Your task to perform on an android device: Go to sound settings Image 0: 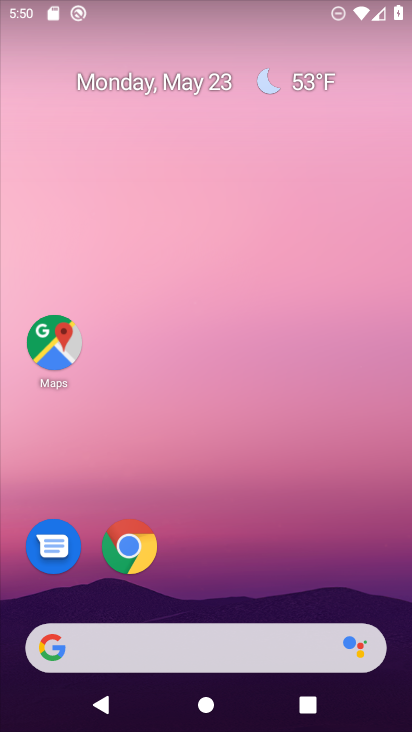
Step 0: drag from (254, 589) to (222, 102)
Your task to perform on an android device: Go to sound settings Image 1: 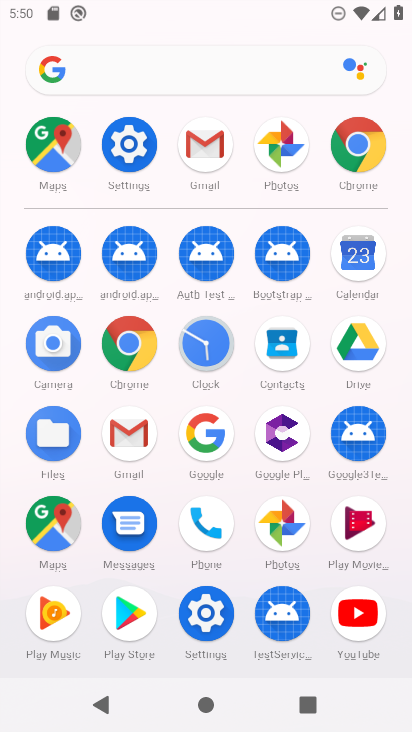
Step 1: click (125, 150)
Your task to perform on an android device: Go to sound settings Image 2: 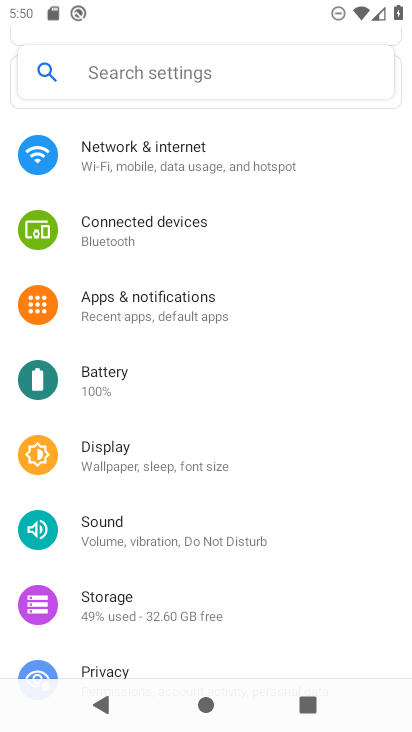
Step 2: click (127, 526)
Your task to perform on an android device: Go to sound settings Image 3: 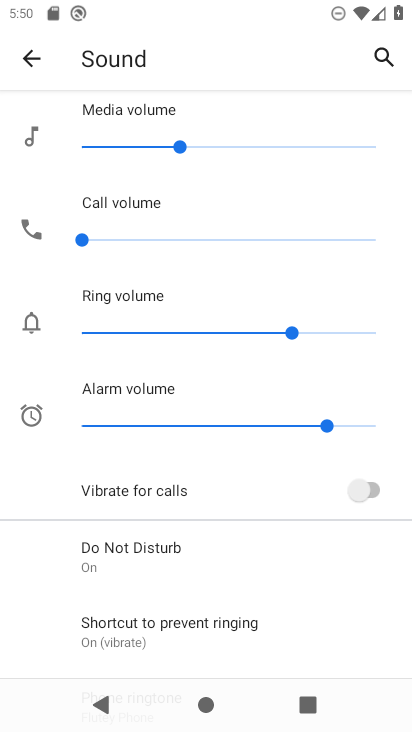
Step 3: task complete